Your task to perform on an android device: change keyboard looks Image 0: 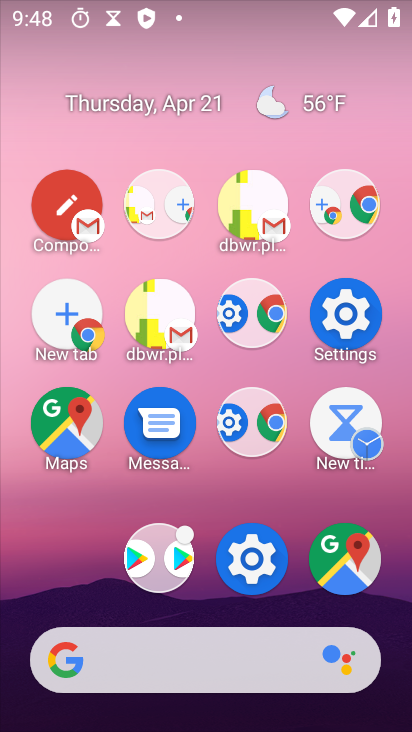
Step 0: drag from (262, 691) to (138, 17)
Your task to perform on an android device: change keyboard looks Image 1: 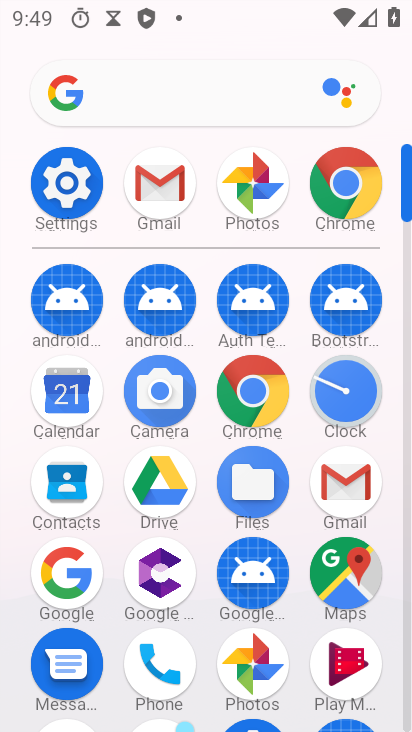
Step 1: click (62, 185)
Your task to perform on an android device: change keyboard looks Image 2: 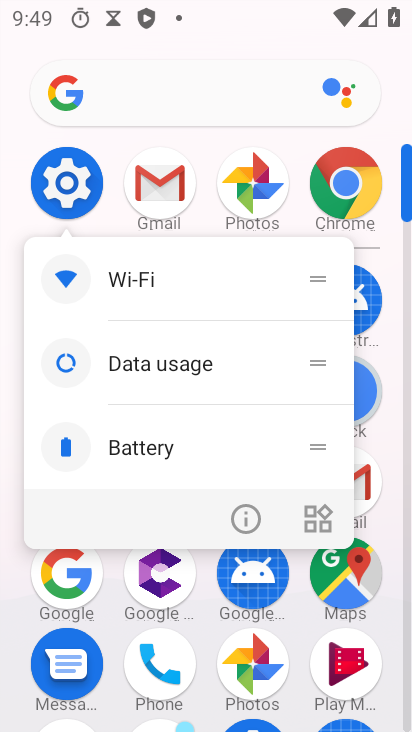
Step 2: click (67, 183)
Your task to perform on an android device: change keyboard looks Image 3: 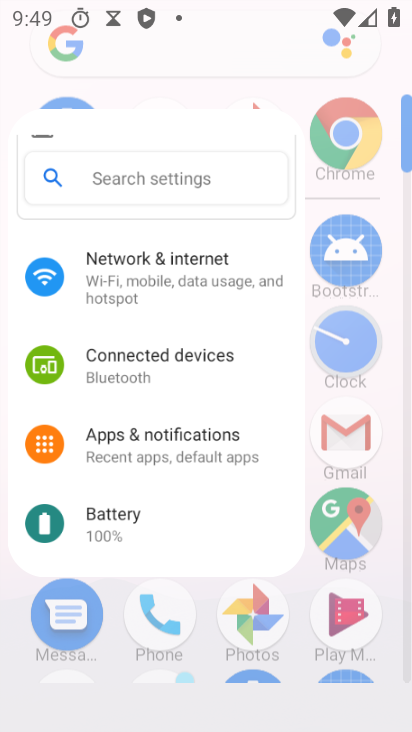
Step 3: click (67, 183)
Your task to perform on an android device: change keyboard looks Image 4: 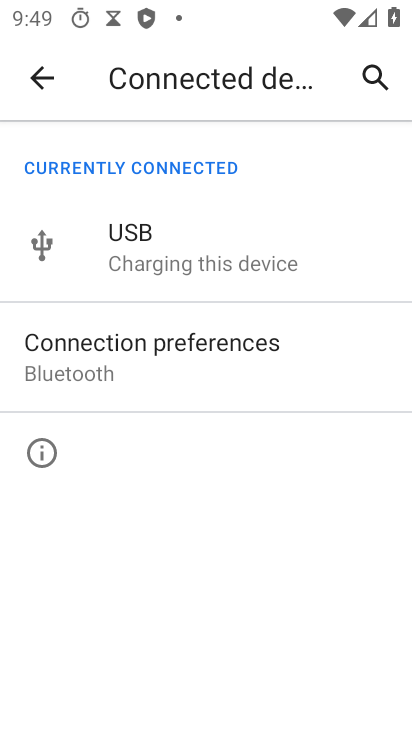
Step 4: click (36, 86)
Your task to perform on an android device: change keyboard looks Image 5: 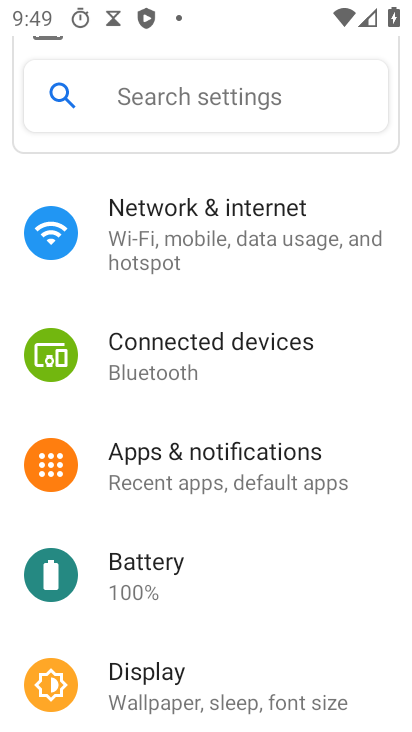
Step 5: drag from (210, 603) to (180, 251)
Your task to perform on an android device: change keyboard looks Image 6: 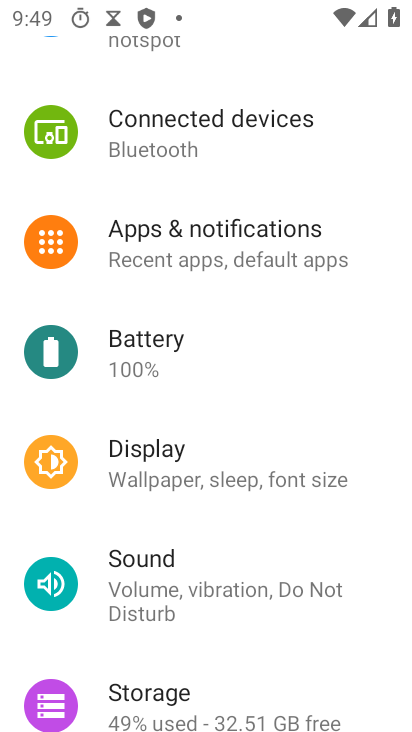
Step 6: drag from (214, 630) to (143, 95)
Your task to perform on an android device: change keyboard looks Image 7: 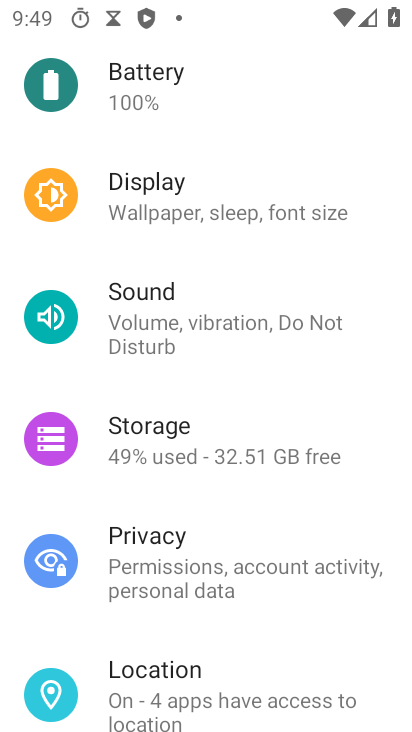
Step 7: drag from (182, 226) to (182, 13)
Your task to perform on an android device: change keyboard looks Image 8: 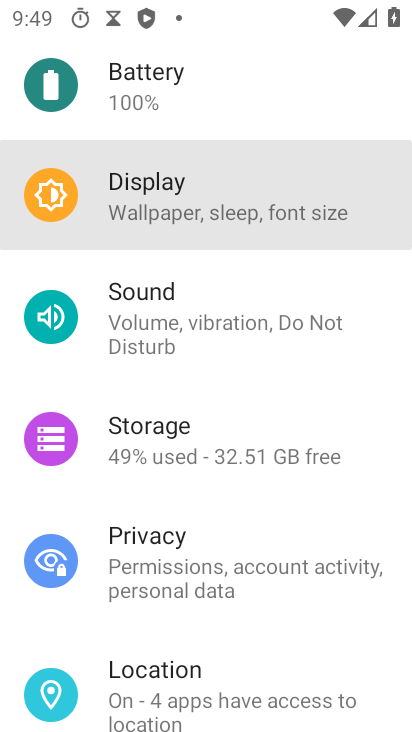
Step 8: drag from (142, 413) to (146, 197)
Your task to perform on an android device: change keyboard looks Image 9: 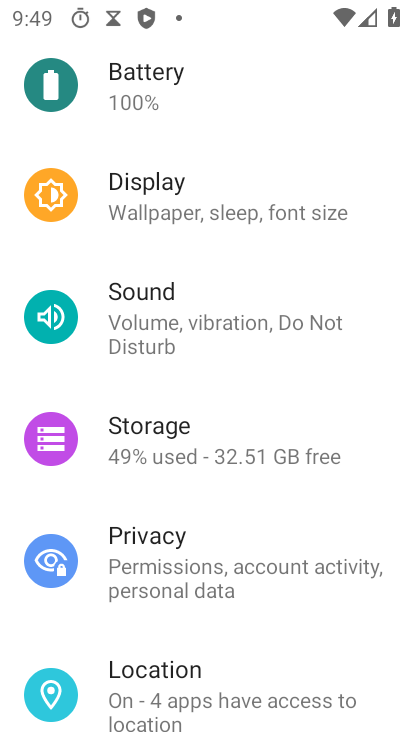
Step 9: drag from (119, 401) to (120, 132)
Your task to perform on an android device: change keyboard looks Image 10: 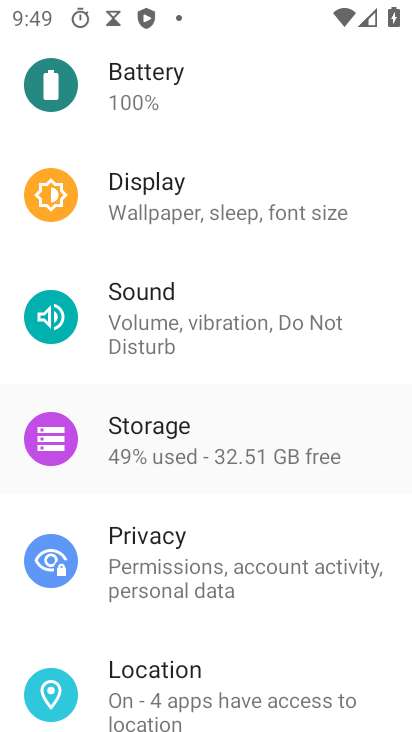
Step 10: drag from (228, 509) to (177, 149)
Your task to perform on an android device: change keyboard looks Image 11: 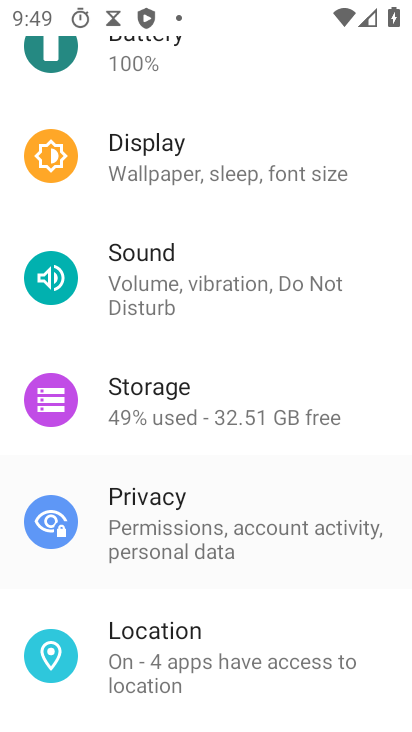
Step 11: drag from (249, 476) to (151, 24)
Your task to perform on an android device: change keyboard looks Image 12: 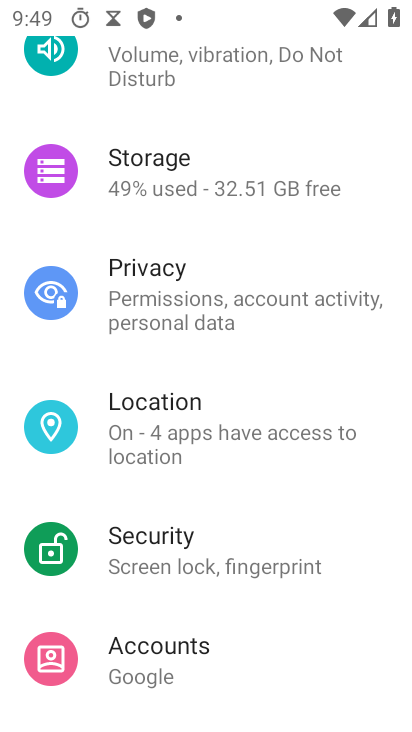
Step 12: drag from (174, 595) to (175, 44)
Your task to perform on an android device: change keyboard looks Image 13: 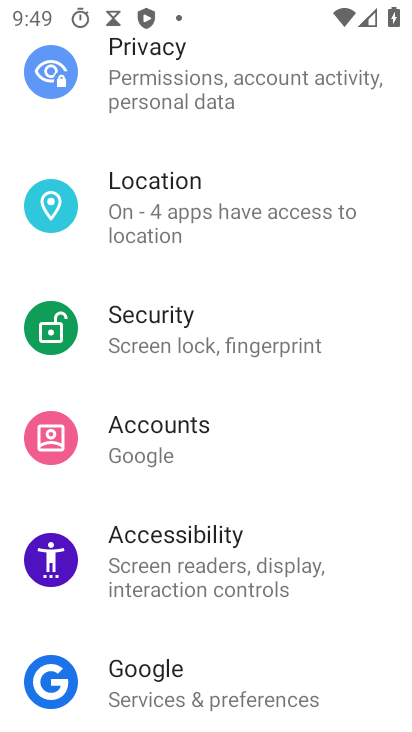
Step 13: drag from (197, 502) to (185, 85)
Your task to perform on an android device: change keyboard looks Image 14: 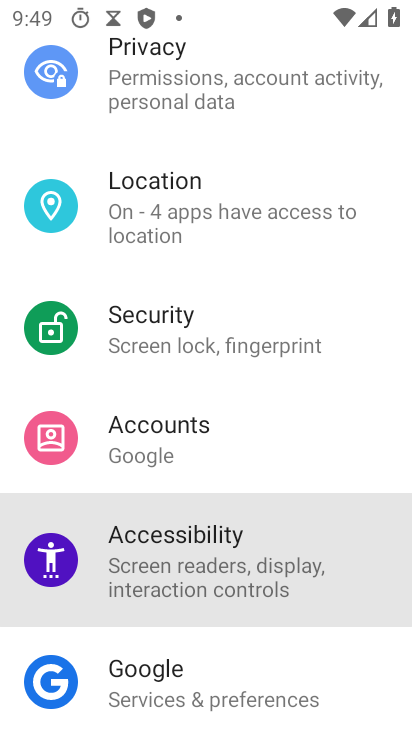
Step 14: drag from (214, 532) to (174, 36)
Your task to perform on an android device: change keyboard looks Image 15: 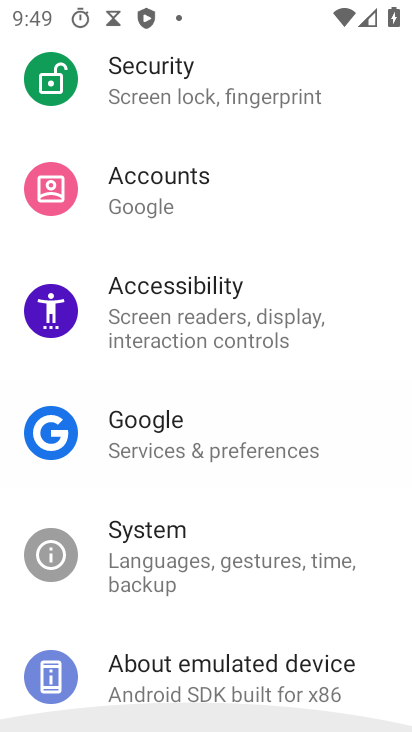
Step 15: drag from (241, 429) to (238, 99)
Your task to perform on an android device: change keyboard looks Image 16: 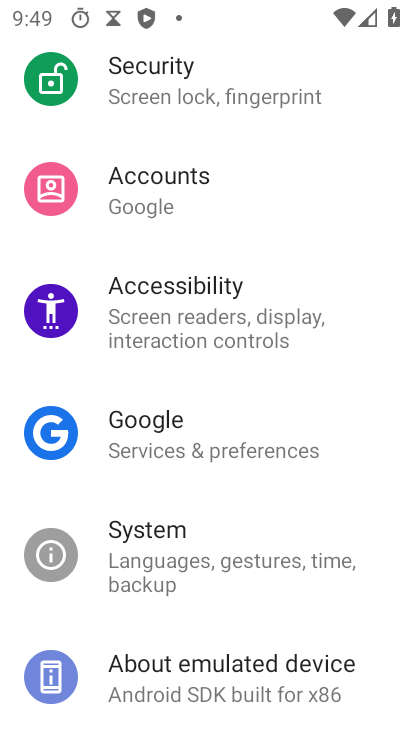
Step 16: drag from (210, 528) to (196, 127)
Your task to perform on an android device: change keyboard looks Image 17: 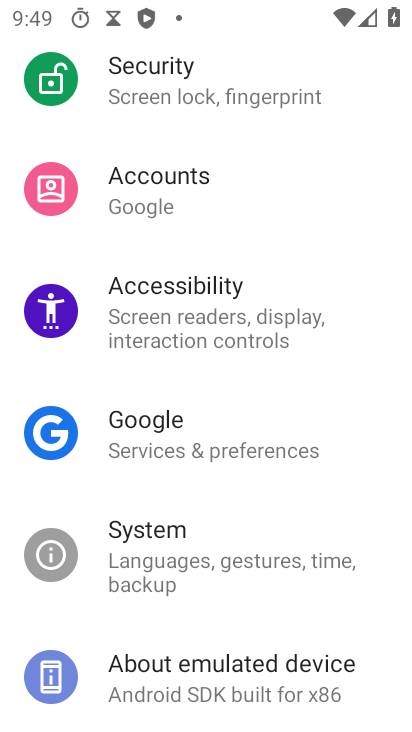
Step 17: click (165, 558)
Your task to perform on an android device: change keyboard looks Image 18: 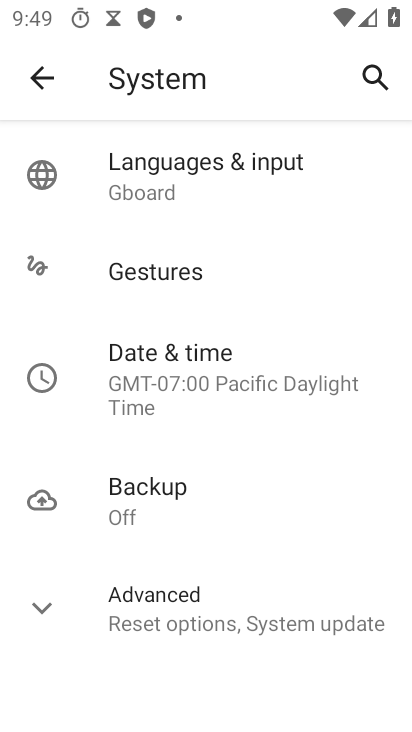
Step 18: click (137, 194)
Your task to perform on an android device: change keyboard looks Image 19: 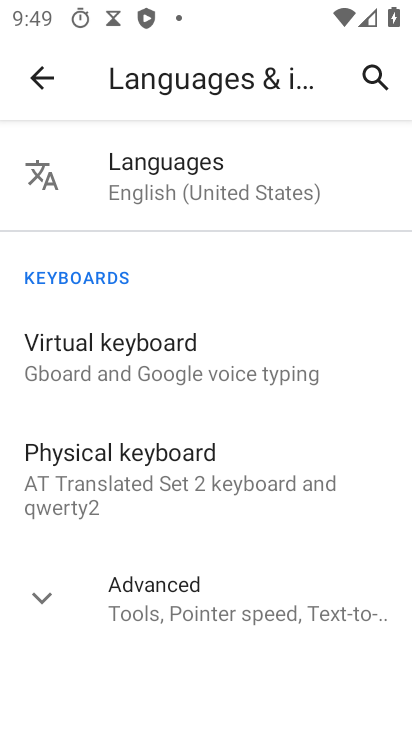
Step 19: click (106, 352)
Your task to perform on an android device: change keyboard looks Image 20: 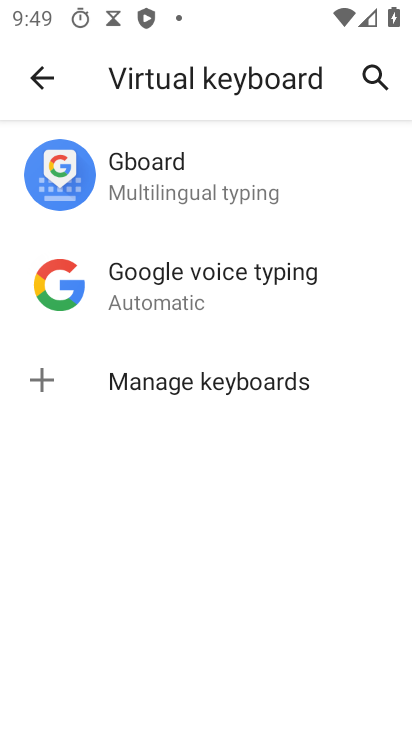
Step 20: click (159, 178)
Your task to perform on an android device: change keyboard looks Image 21: 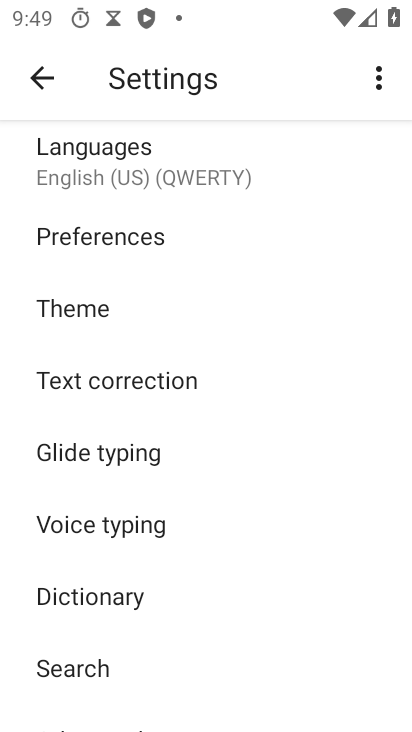
Step 21: click (68, 303)
Your task to perform on an android device: change keyboard looks Image 22: 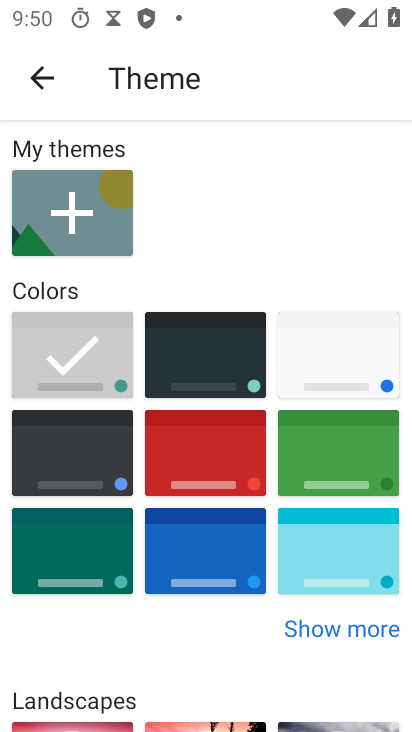
Step 22: click (158, 358)
Your task to perform on an android device: change keyboard looks Image 23: 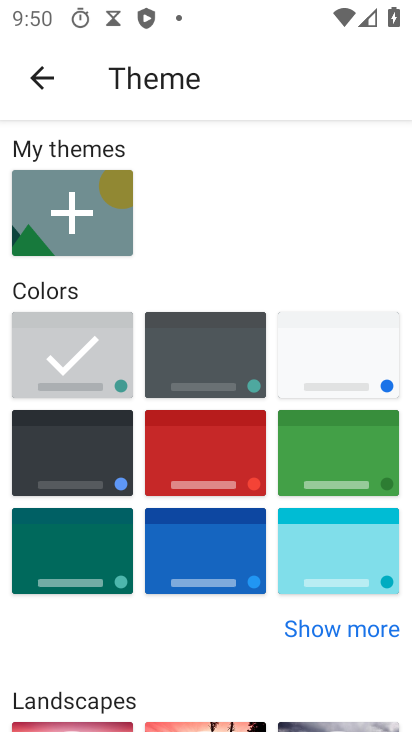
Step 23: click (170, 355)
Your task to perform on an android device: change keyboard looks Image 24: 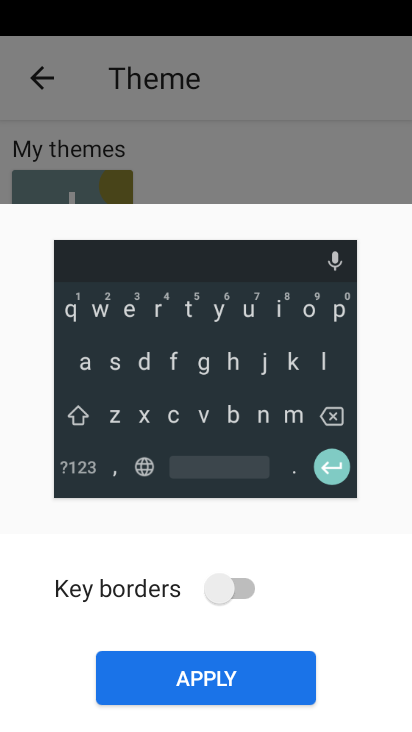
Step 24: click (202, 676)
Your task to perform on an android device: change keyboard looks Image 25: 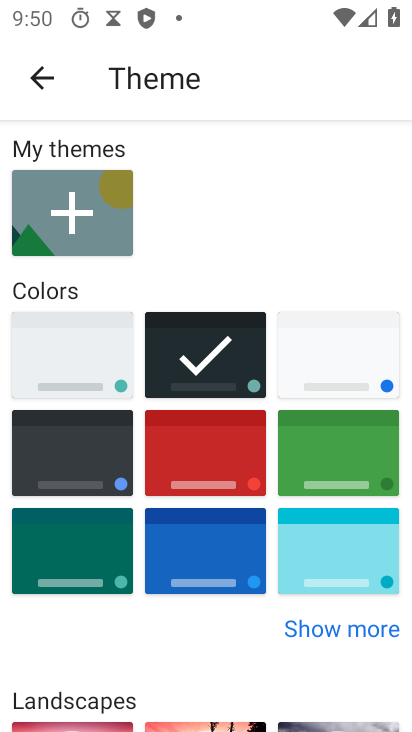
Step 25: task complete